Your task to perform on an android device: turn pop-ups on in chrome Image 0: 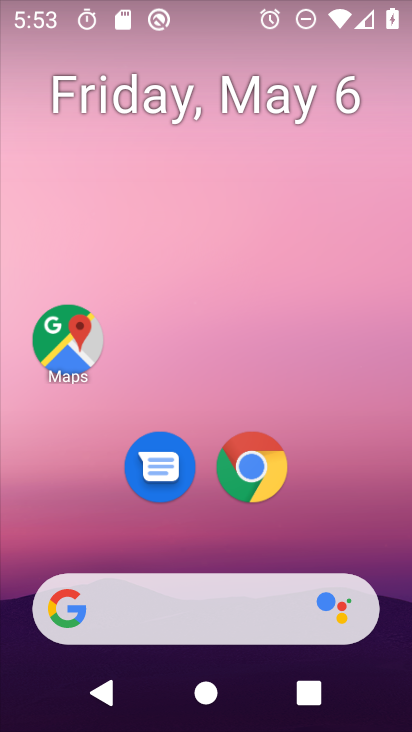
Step 0: click (248, 504)
Your task to perform on an android device: turn pop-ups on in chrome Image 1: 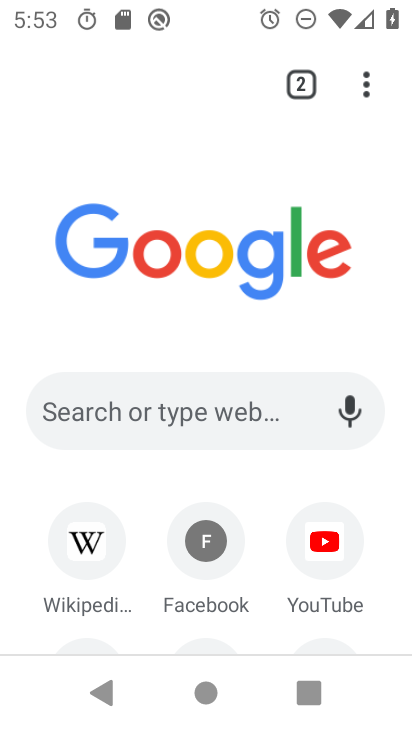
Step 1: click (372, 86)
Your task to perform on an android device: turn pop-ups on in chrome Image 2: 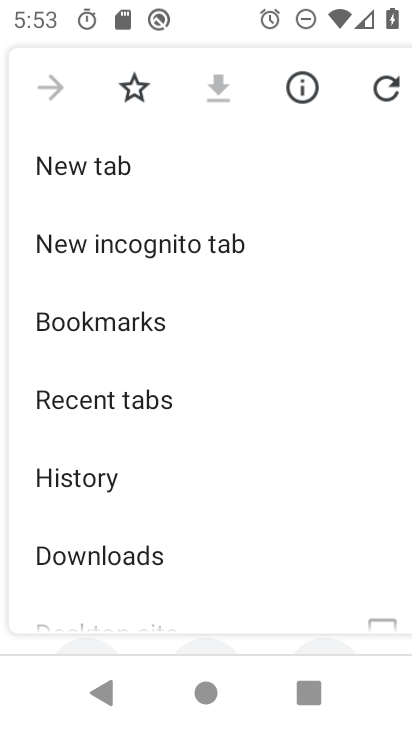
Step 2: drag from (170, 546) to (263, 130)
Your task to perform on an android device: turn pop-ups on in chrome Image 3: 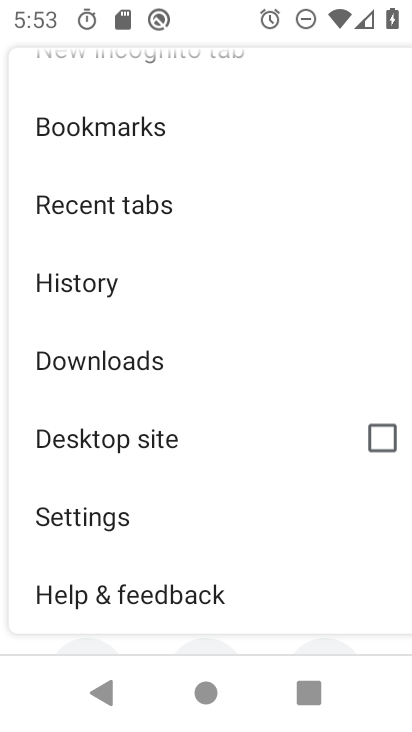
Step 3: click (122, 510)
Your task to perform on an android device: turn pop-ups on in chrome Image 4: 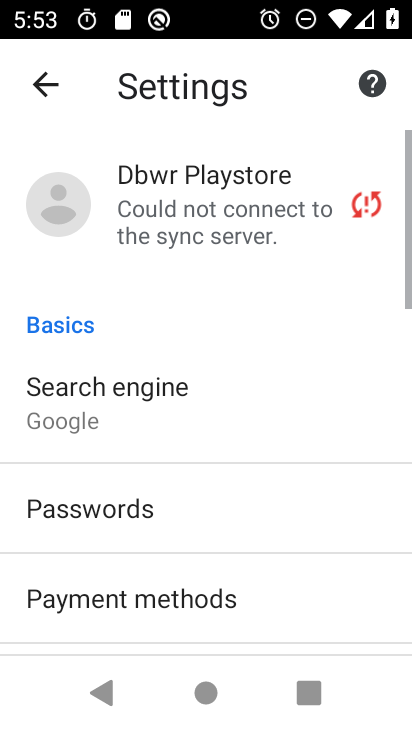
Step 4: drag from (172, 577) to (216, 154)
Your task to perform on an android device: turn pop-ups on in chrome Image 5: 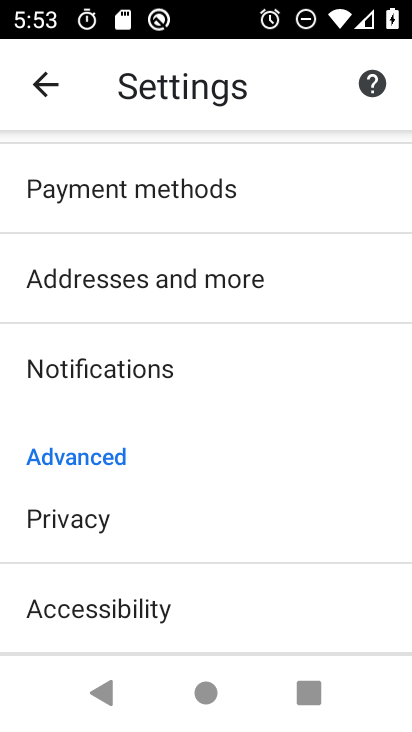
Step 5: drag from (159, 558) to (188, 127)
Your task to perform on an android device: turn pop-ups on in chrome Image 6: 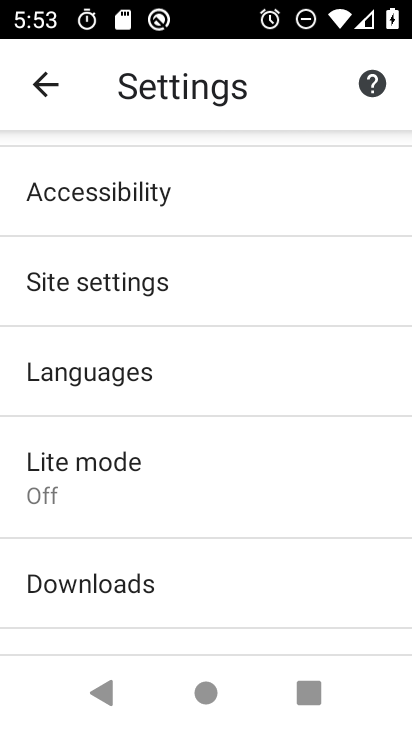
Step 6: click (127, 290)
Your task to perform on an android device: turn pop-ups on in chrome Image 7: 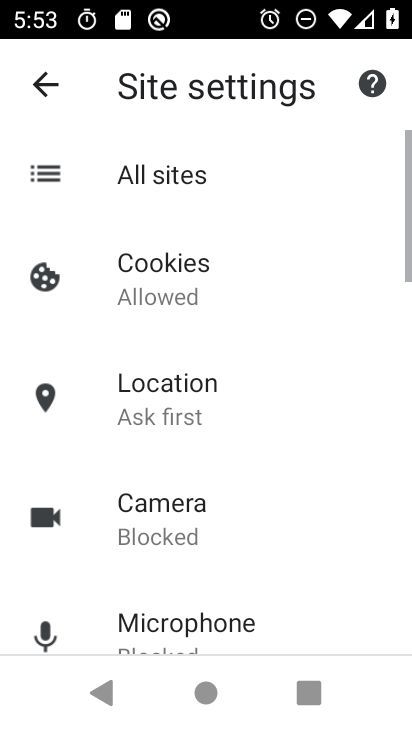
Step 7: drag from (190, 601) to (256, 184)
Your task to perform on an android device: turn pop-ups on in chrome Image 8: 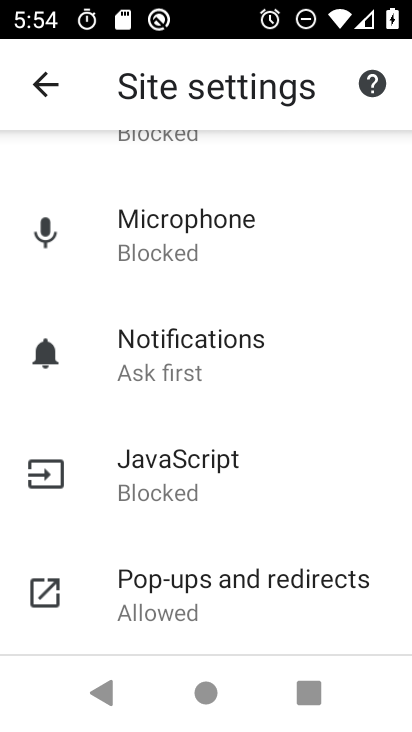
Step 8: click (184, 594)
Your task to perform on an android device: turn pop-ups on in chrome Image 9: 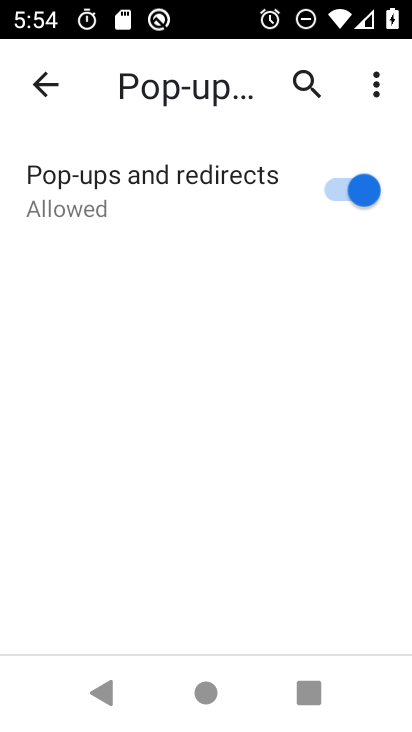
Step 9: task complete